Your task to perform on an android device: find which apps use the phone's location Image 0: 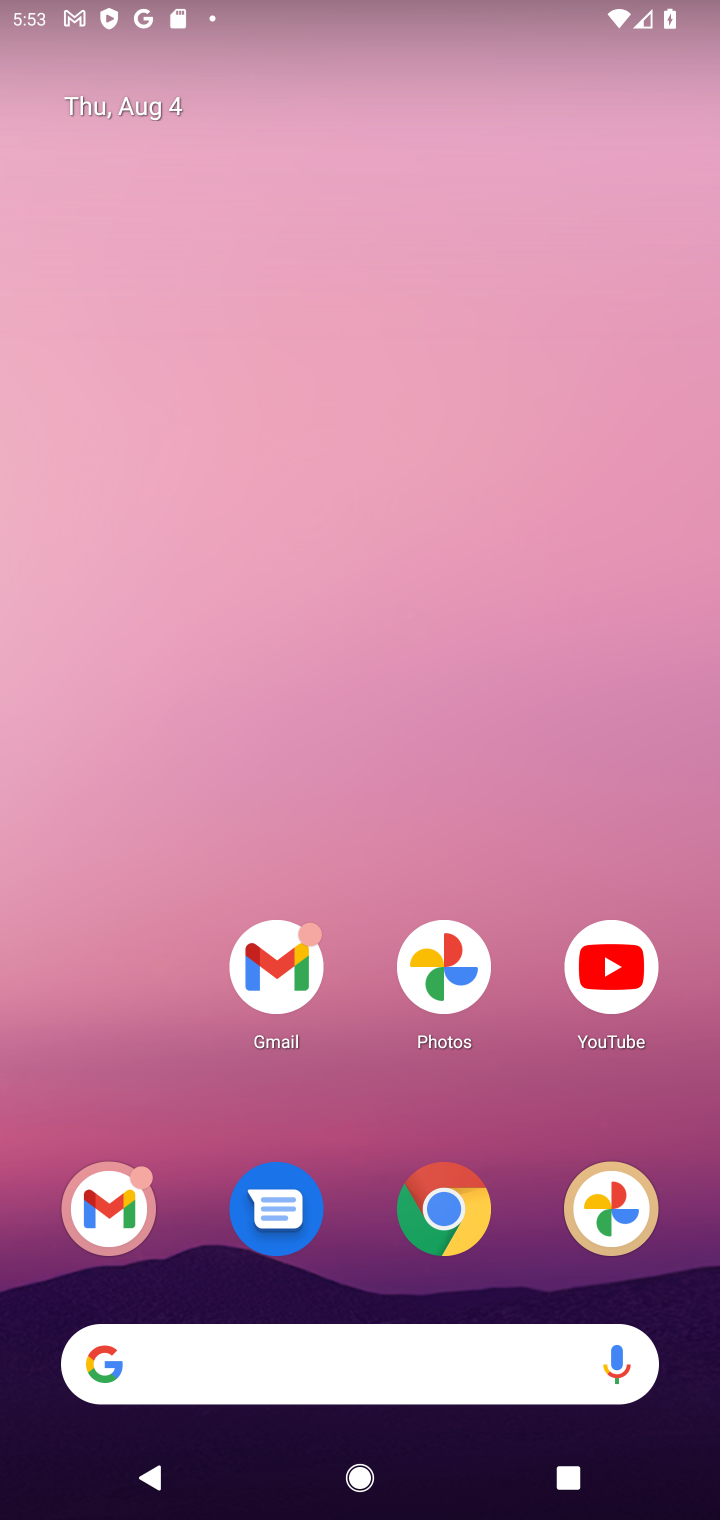
Step 0: drag from (371, 352) to (185, 154)
Your task to perform on an android device: find which apps use the phone's location Image 1: 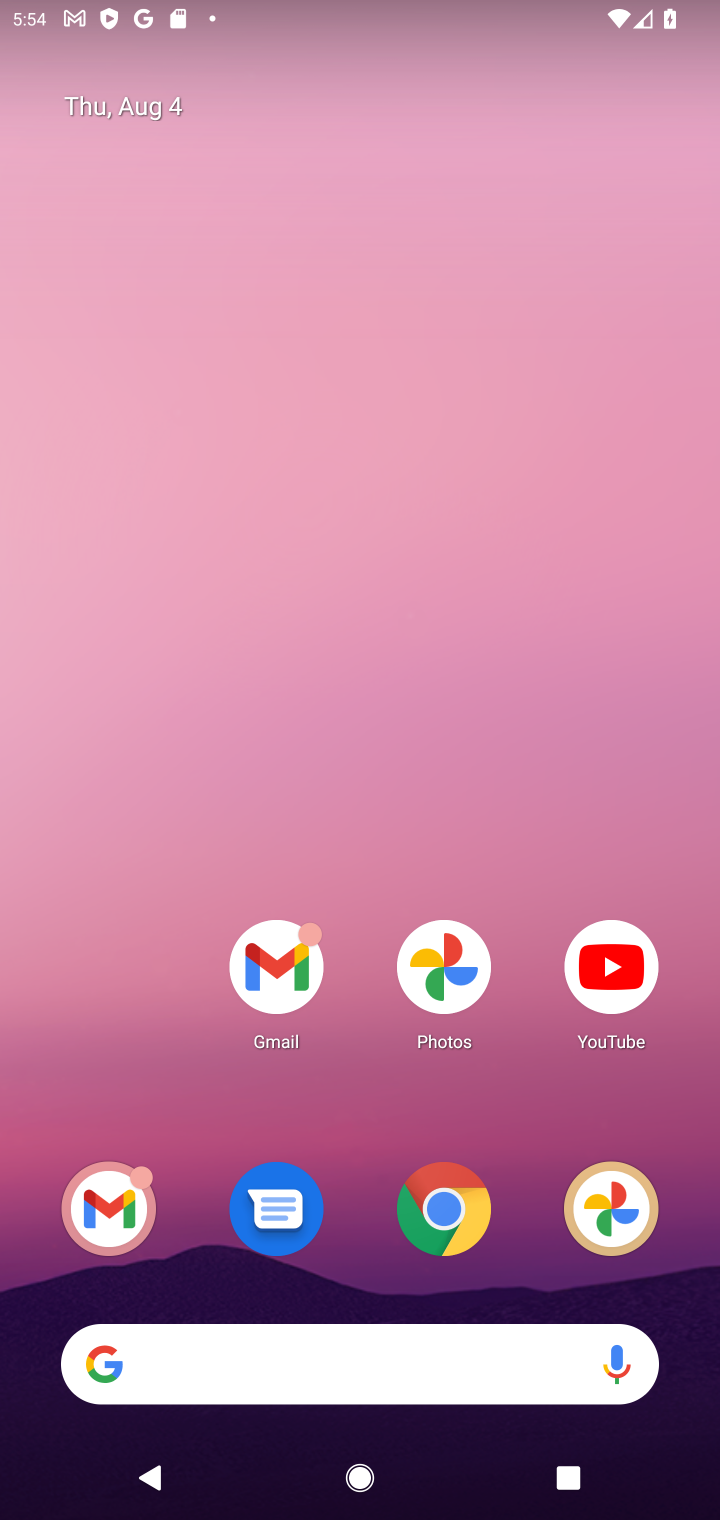
Step 1: drag from (373, 1323) to (326, 16)
Your task to perform on an android device: find which apps use the phone's location Image 2: 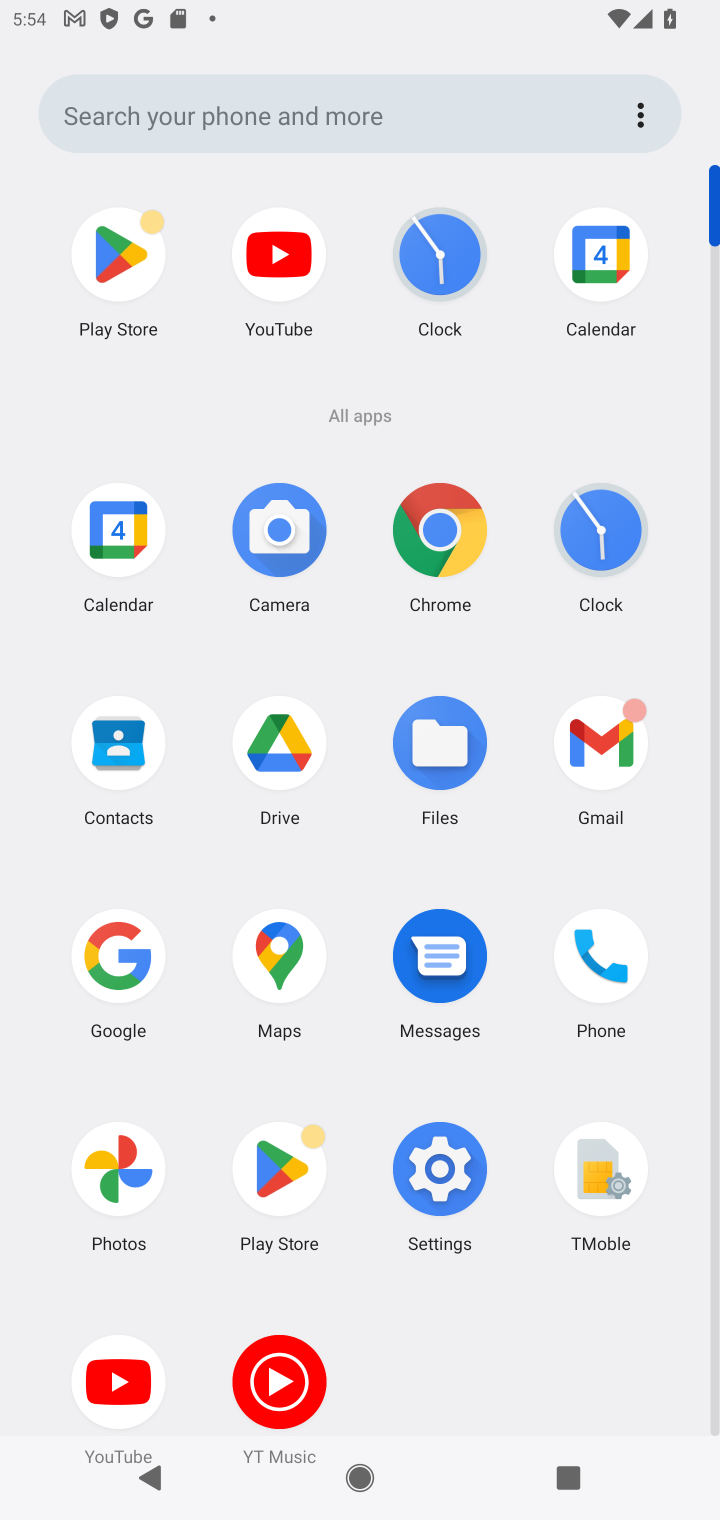
Step 2: click (443, 1192)
Your task to perform on an android device: find which apps use the phone's location Image 3: 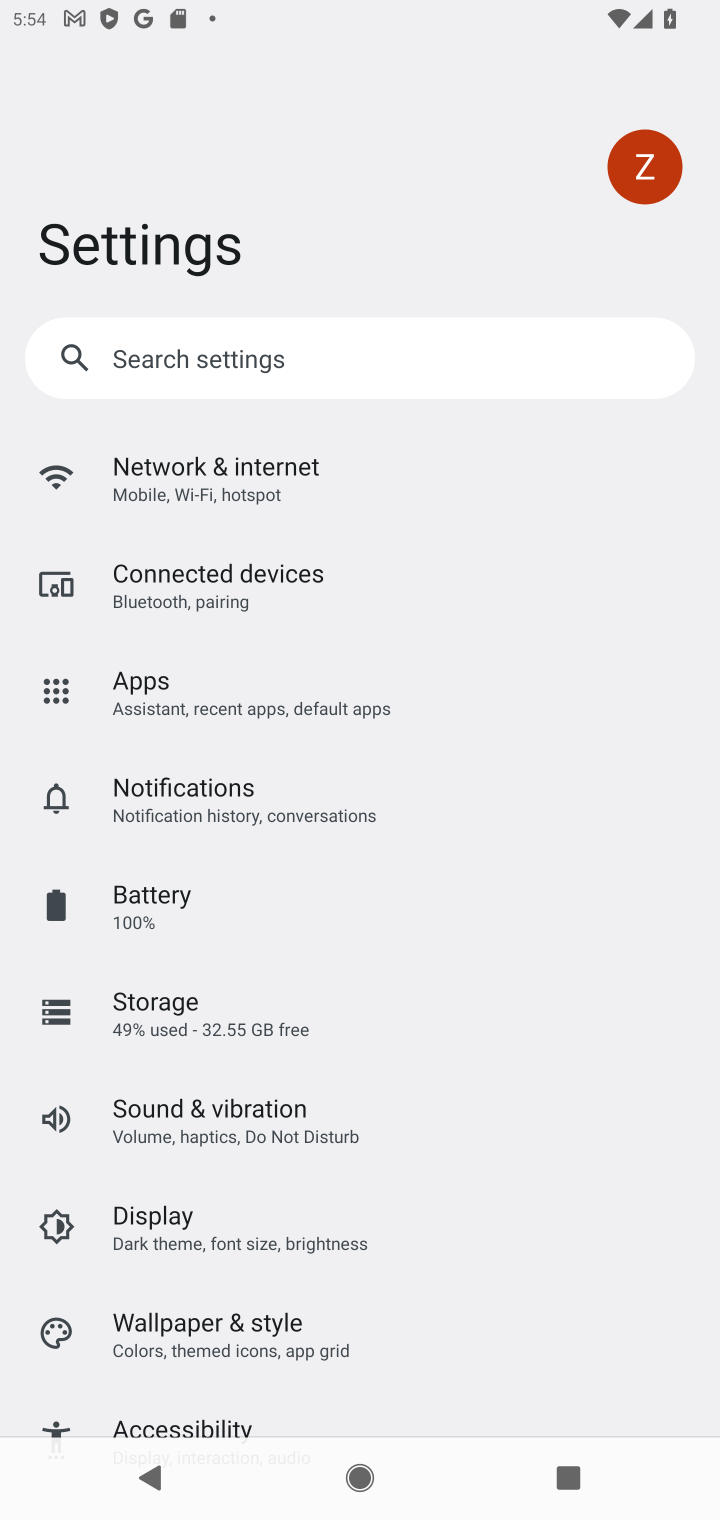
Step 3: drag from (295, 1246) to (195, 153)
Your task to perform on an android device: find which apps use the phone's location Image 4: 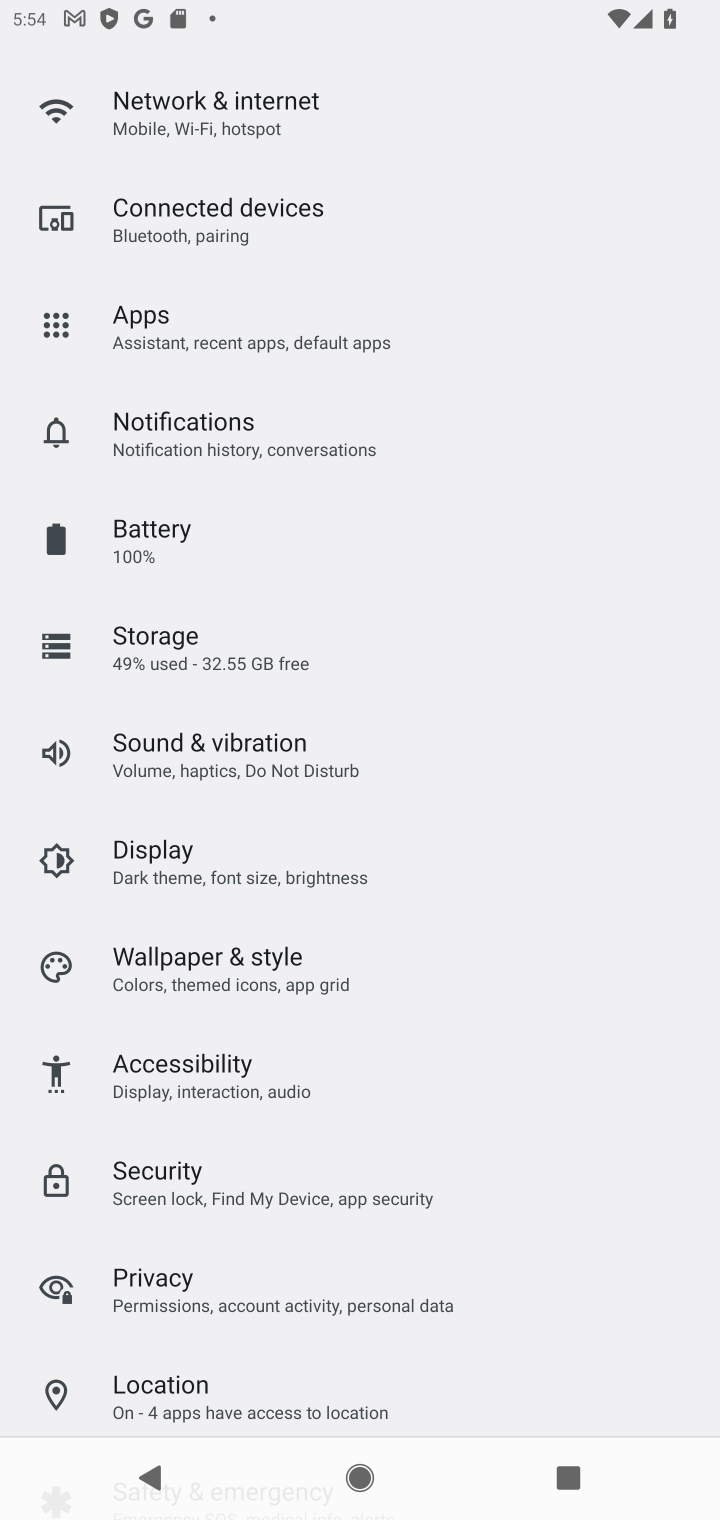
Step 4: click (201, 1382)
Your task to perform on an android device: find which apps use the phone's location Image 5: 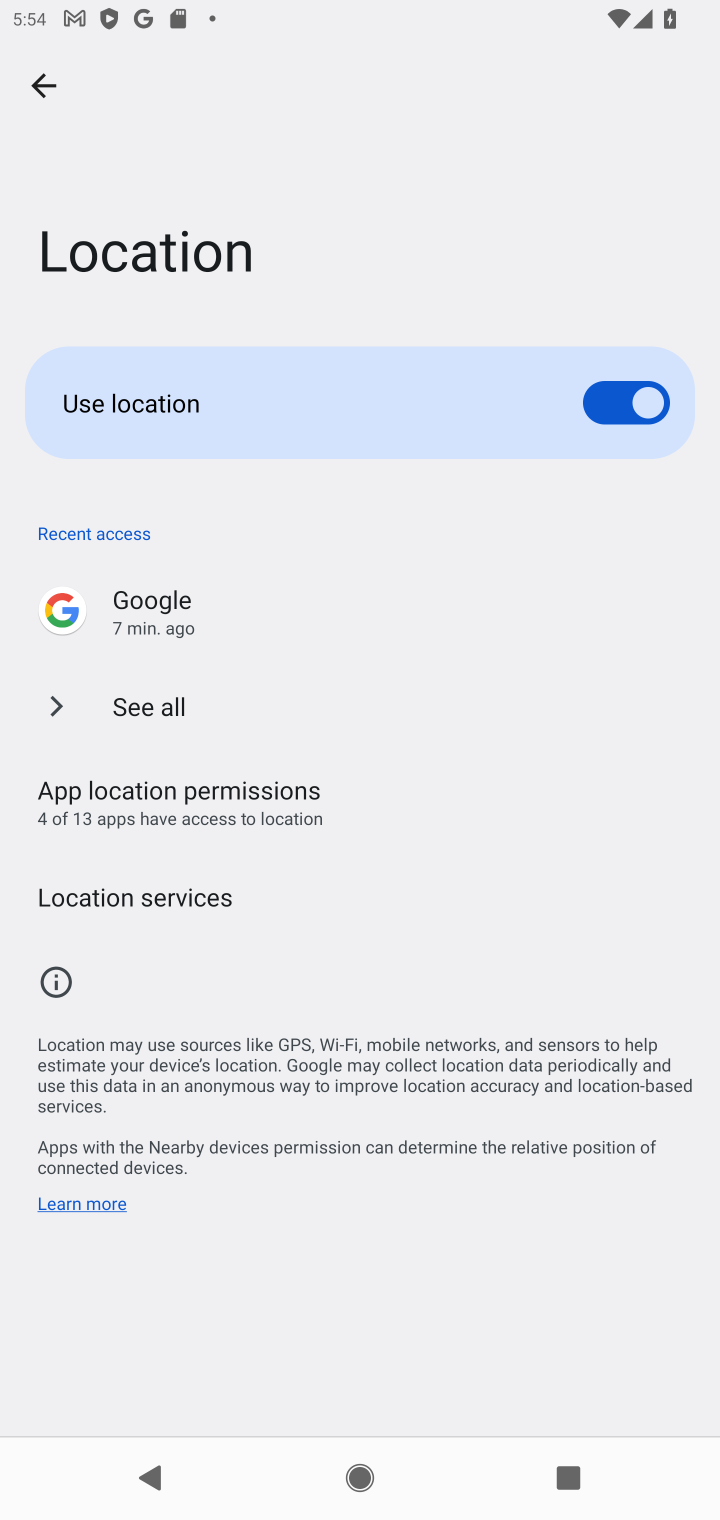
Step 5: click (215, 811)
Your task to perform on an android device: find which apps use the phone's location Image 6: 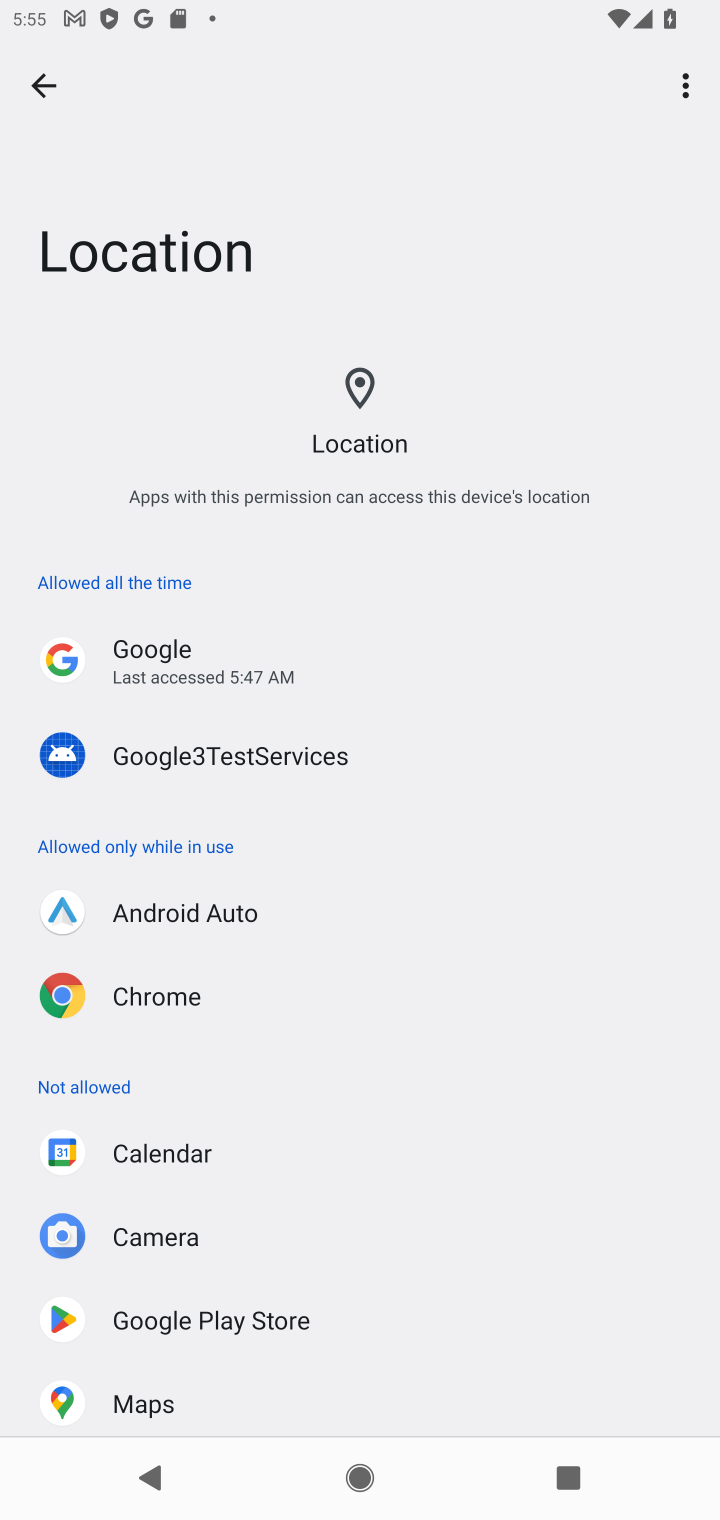
Step 6: task complete